Your task to perform on an android device: Go to Amazon Image 0: 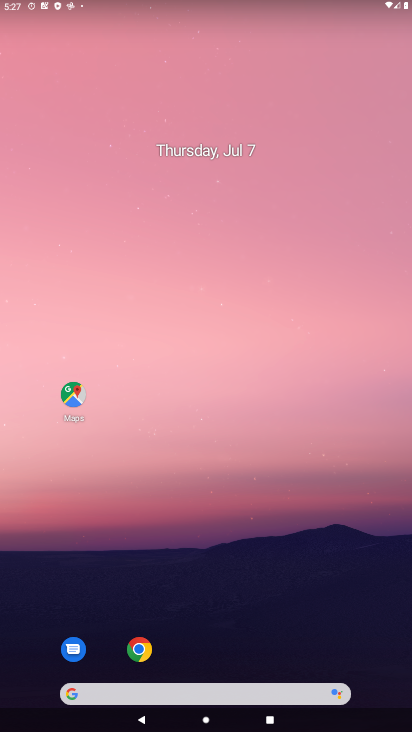
Step 0: drag from (370, 671) to (228, 6)
Your task to perform on an android device: Go to Amazon Image 1: 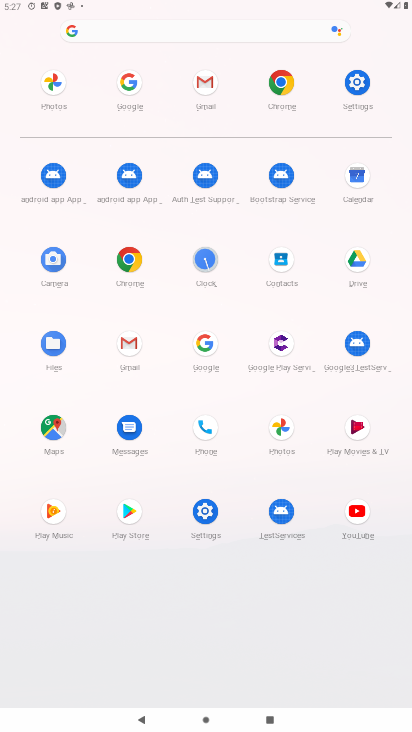
Step 1: click (208, 352)
Your task to perform on an android device: Go to Amazon Image 2: 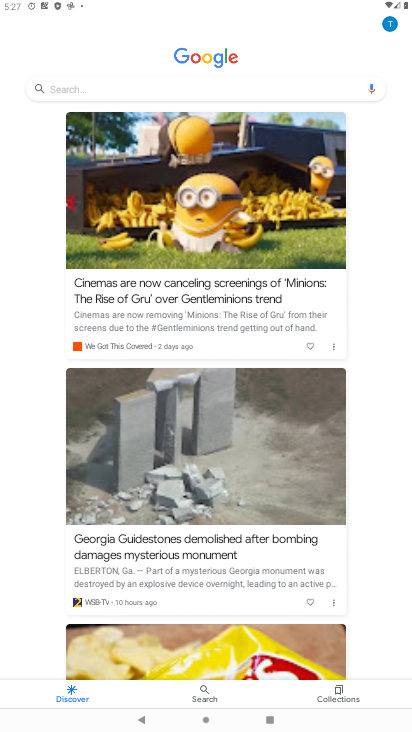
Step 2: click (97, 78)
Your task to perform on an android device: Go to Amazon Image 3: 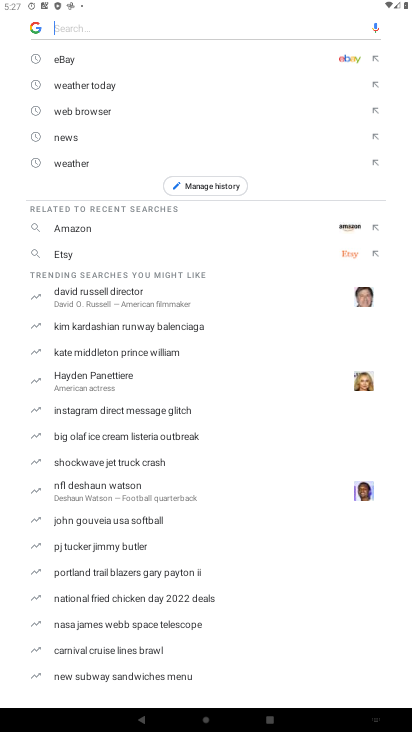
Step 3: type "Go to Amazon"
Your task to perform on an android device: Go to Amazon Image 4: 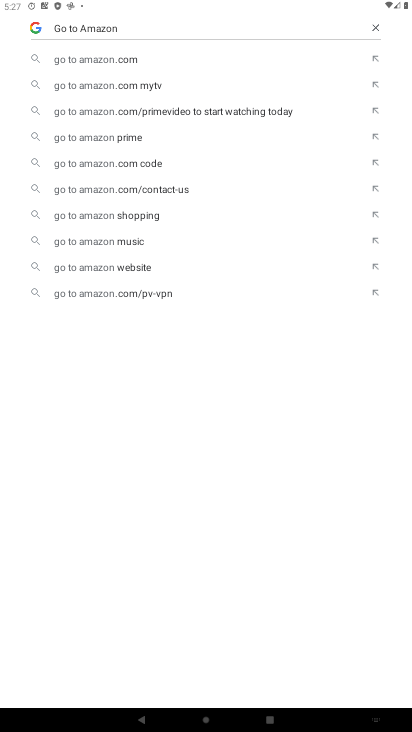
Step 4: click (112, 60)
Your task to perform on an android device: Go to Amazon Image 5: 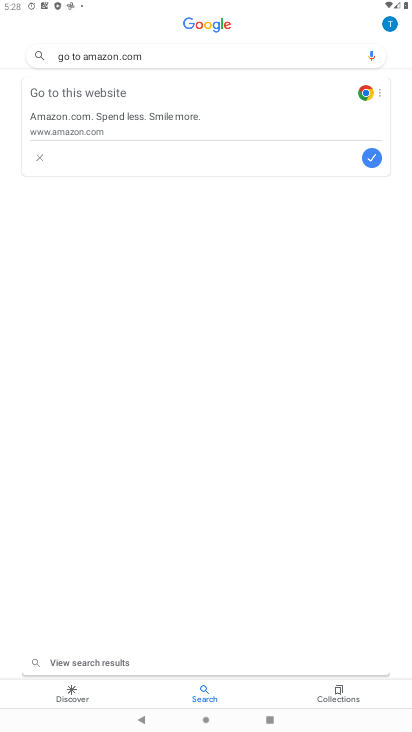
Step 5: task complete